Your task to perform on an android device: Go to CNN.com Image 0: 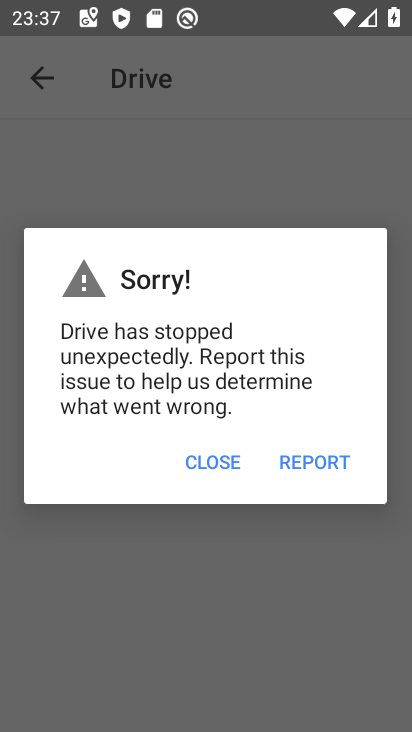
Step 0: press home button
Your task to perform on an android device: Go to CNN.com Image 1: 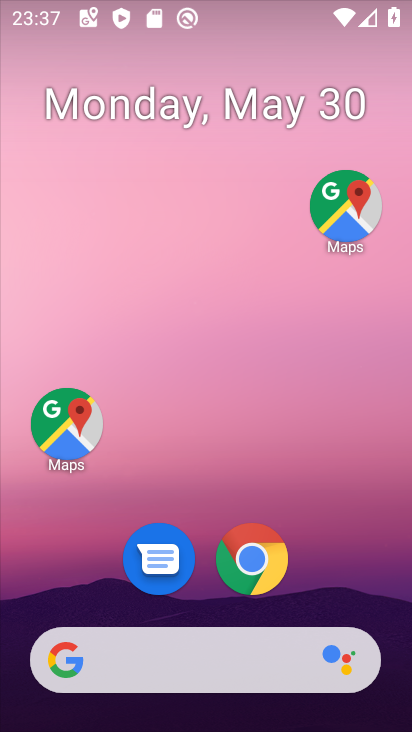
Step 1: drag from (324, 397) to (332, 61)
Your task to perform on an android device: Go to CNN.com Image 2: 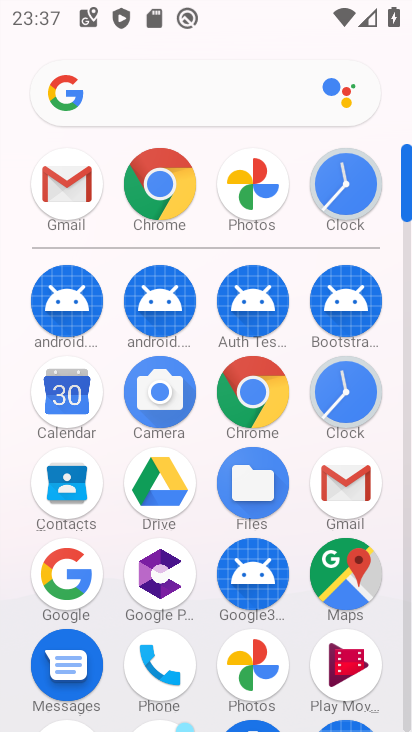
Step 2: click (258, 388)
Your task to perform on an android device: Go to CNN.com Image 3: 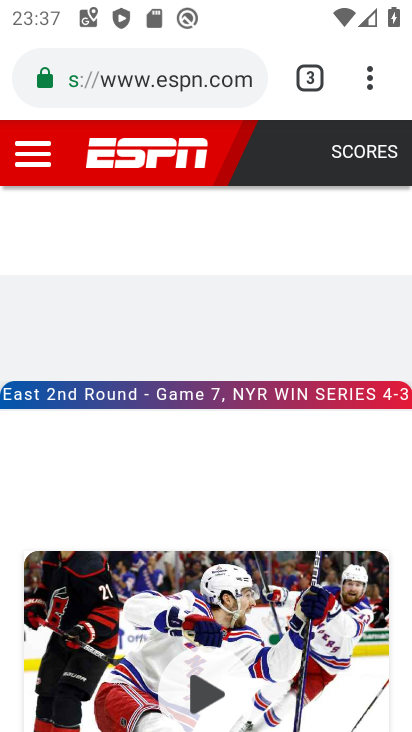
Step 3: click (191, 72)
Your task to perform on an android device: Go to CNN.com Image 4: 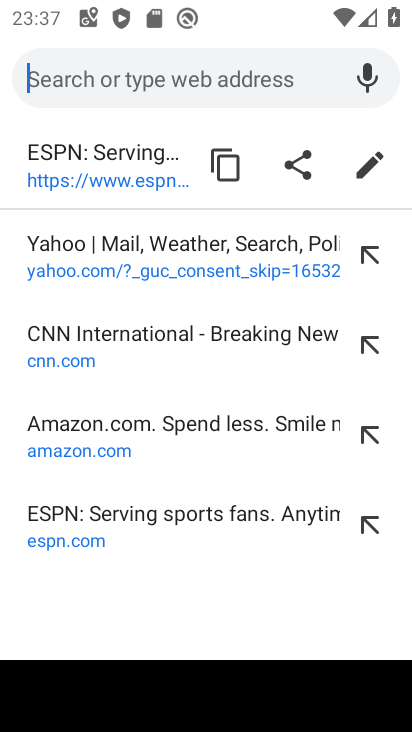
Step 4: click (85, 359)
Your task to perform on an android device: Go to CNN.com Image 5: 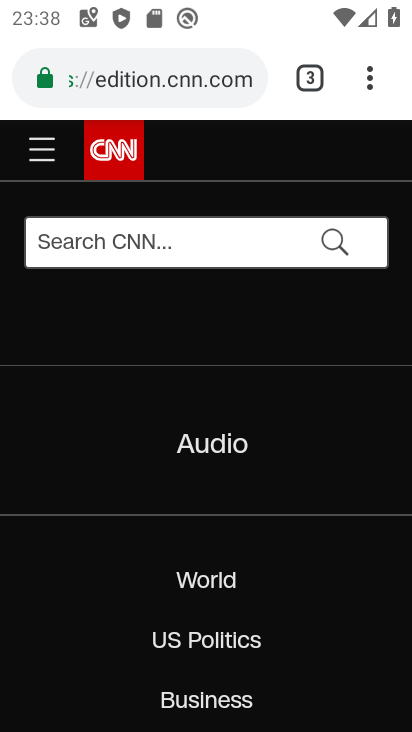
Step 5: task complete